Your task to perform on an android device: delete the emails in spam in the gmail app Image 0: 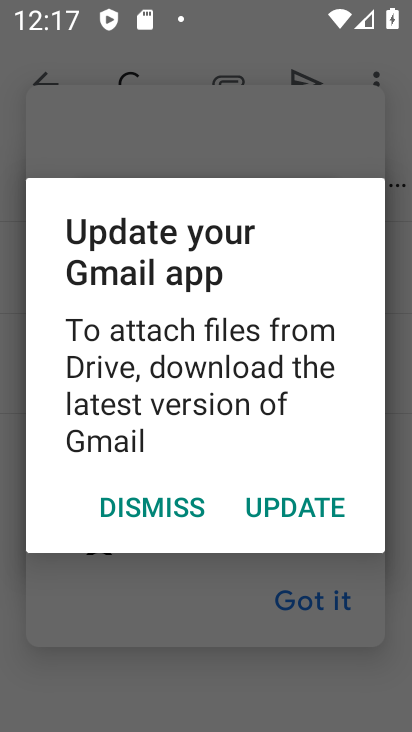
Step 0: press home button
Your task to perform on an android device: delete the emails in spam in the gmail app Image 1: 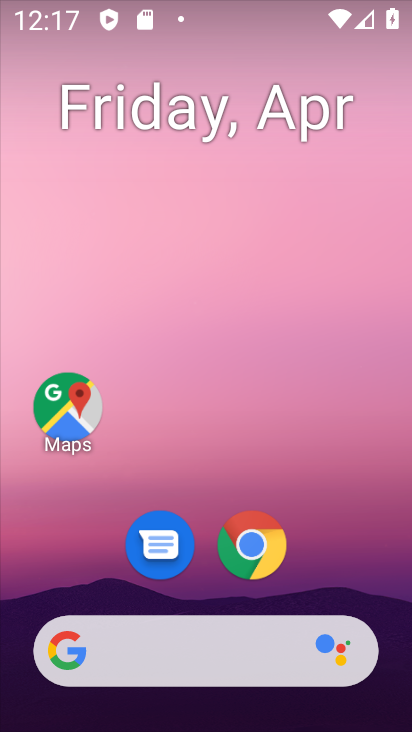
Step 1: drag from (318, 489) to (265, 79)
Your task to perform on an android device: delete the emails in spam in the gmail app Image 2: 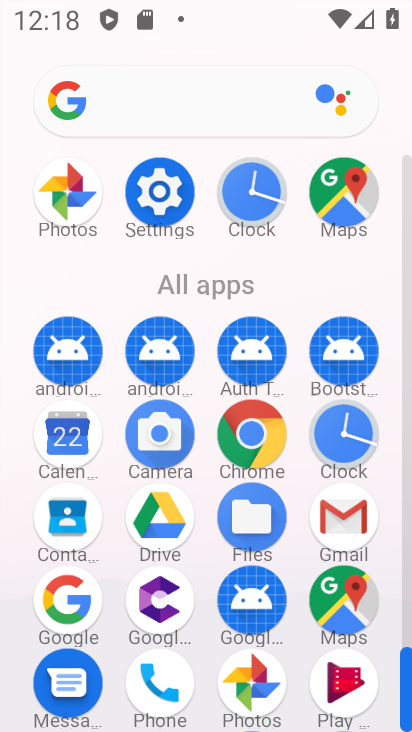
Step 2: click (348, 514)
Your task to perform on an android device: delete the emails in spam in the gmail app Image 3: 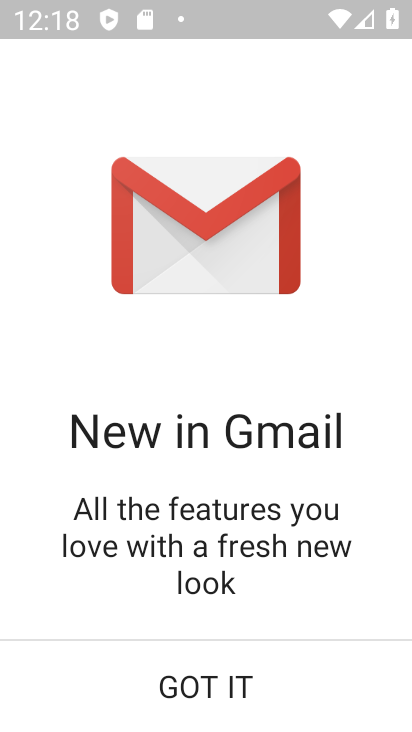
Step 3: click (177, 680)
Your task to perform on an android device: delete the emails in spam in the gmail app Image 4: 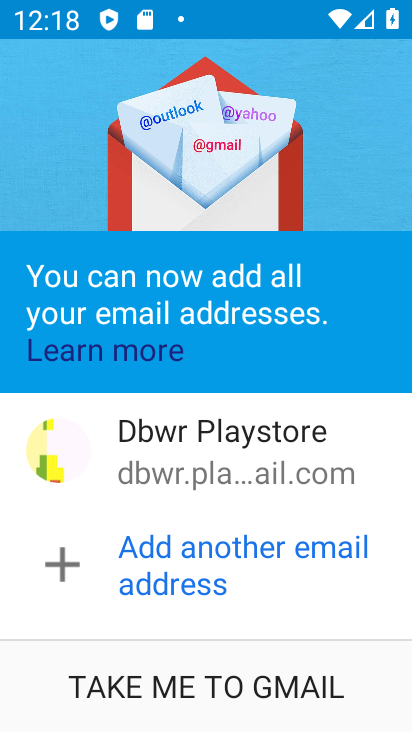
Step 4: click (212, 667)
Your task to perform on an android device: delete the emails in spam in the gmail app Image 5: 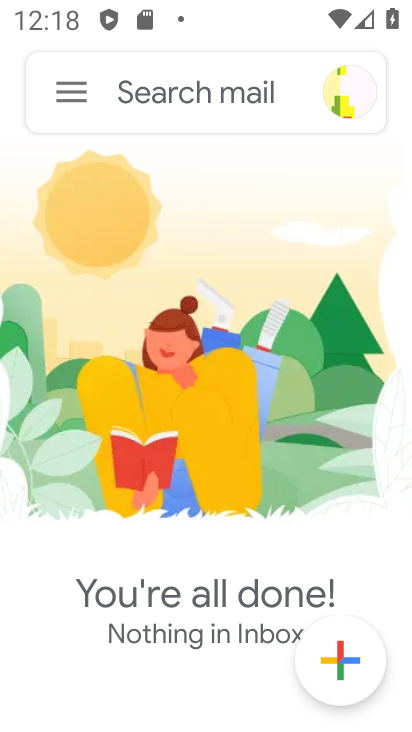
Step 5: click (74, 90)
Your task to perform on an android device: delete the emails in spam in the gmail app Image 6: 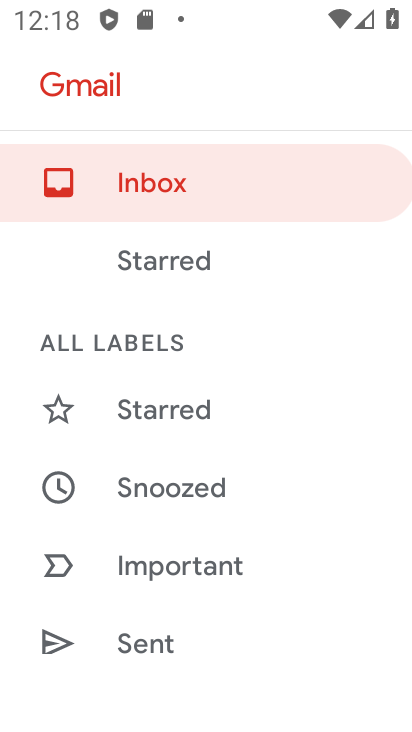
Step 6: drag from (265, 617) to (264, 179)
Your task to perform on an android device: delete the emails in spam in the gmail app Image 7: 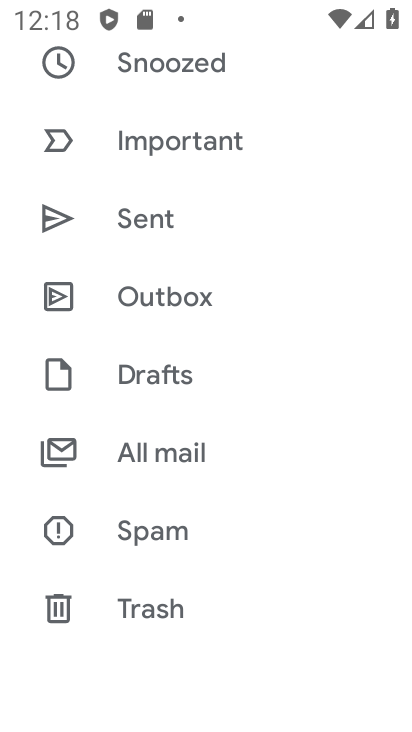
Step 7: click (175, 535)
Your task to perform on an android device: delete the emails in spam in the gmail app Image 8: 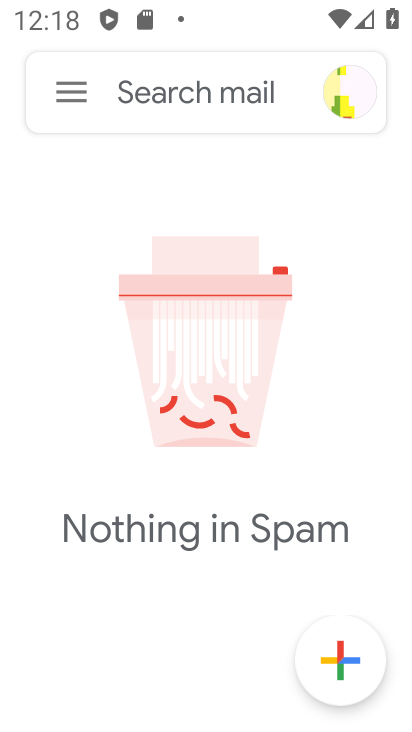
Step 8: task complete